Your task to perform on an android device: toggle javascript in the chrome app Image 0: 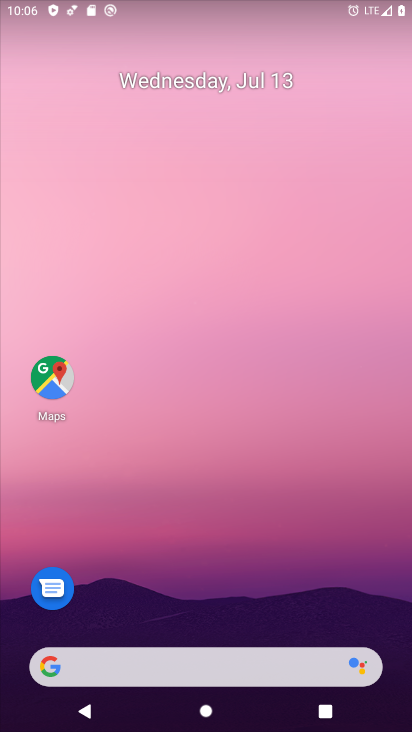
Step 0: drag from (257, 712) to (273, 89)
Your task to perform on an android device: toggle javascript in the chrome app Image 1: 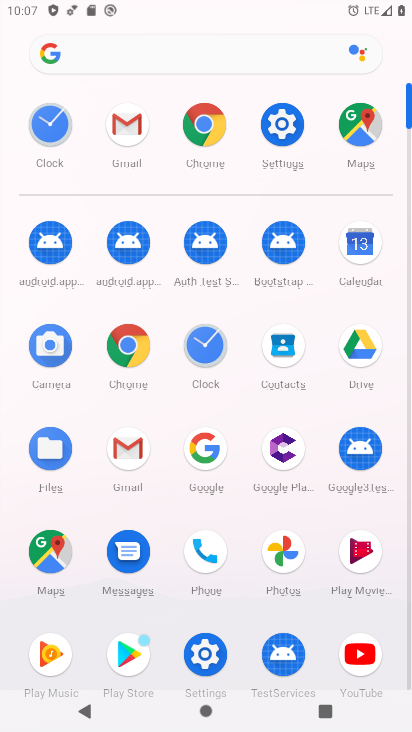
Step 1: click (208, 112)
Your task to perform on an android device: toggle javascript in the chrome app Image 2: 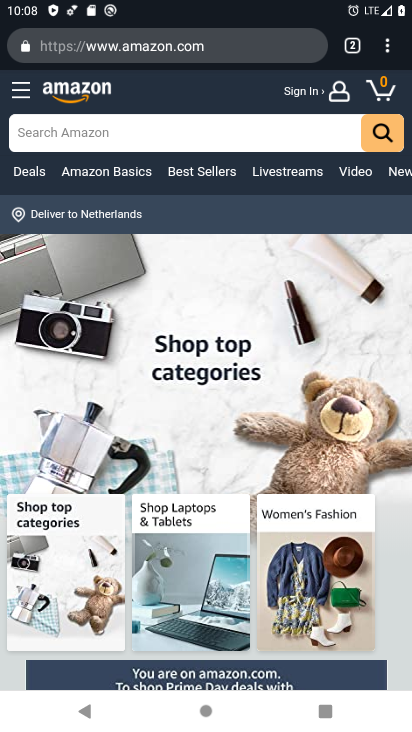
Step 2: click (384, 41)
Your task to perform on an android device: toggle javascript in the chrome app Image 3: 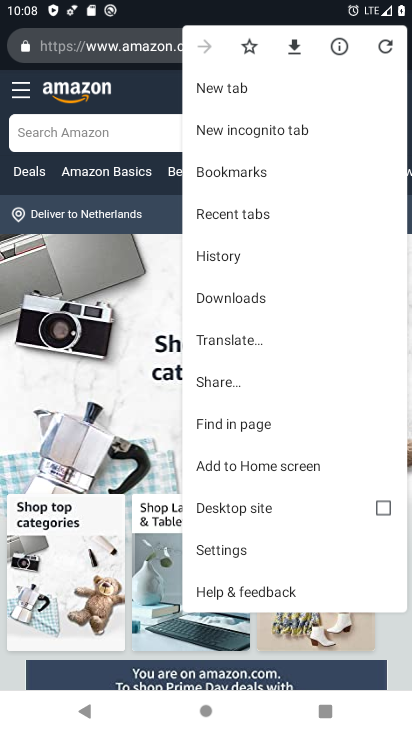
Step 3: click (249, 545)
Your task to perform on an android device: toggle javascript in the chrome app Image 4: 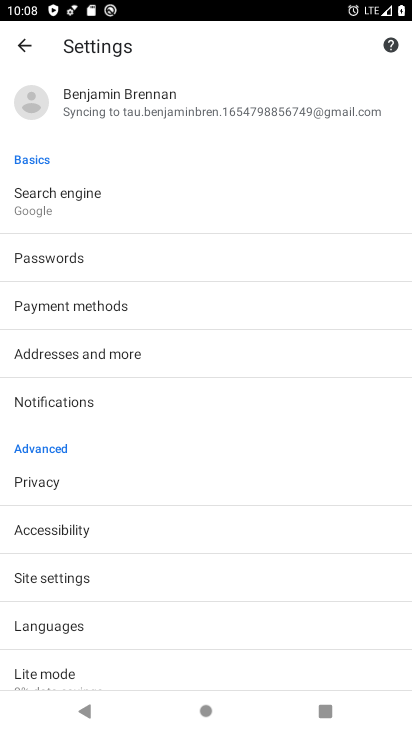
Step 4: click (31, 576)
Your task to perform on an android device: toggle javascript in the chrome app Image 5: 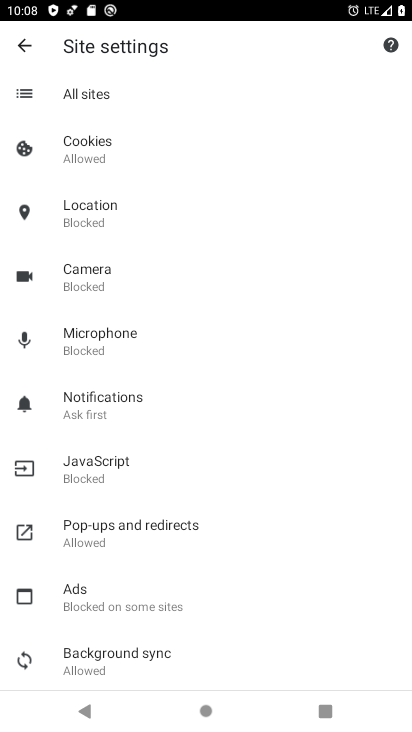
Step 5: click (124, 468)
Your task to perform on an android device: toggle javascript in the chrome app Image 6: 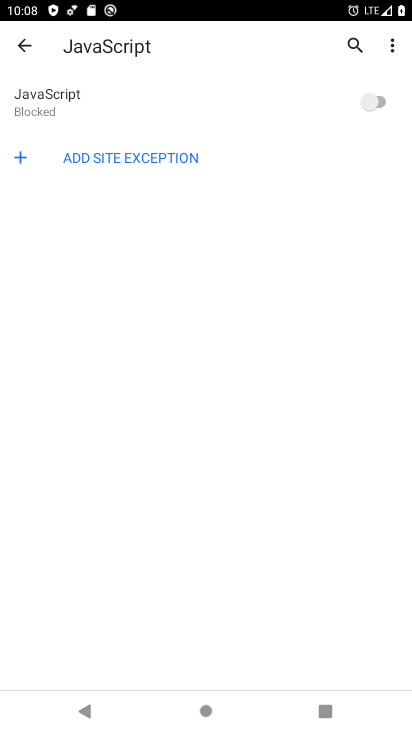
Step 6: click (386, 101)
Your task to perform on an android device: toggle javascript in the chrome app Image 7: 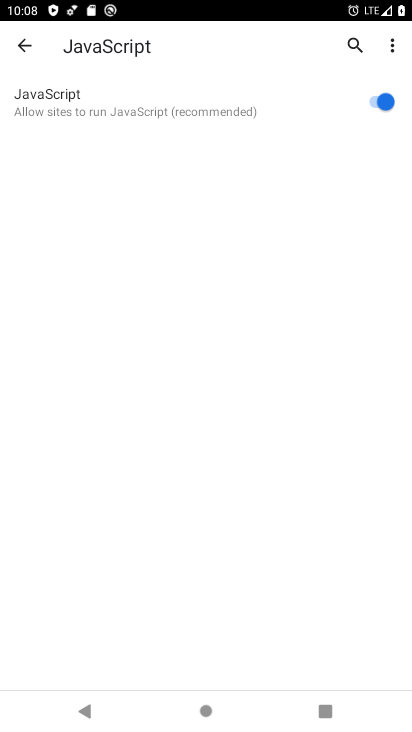
Step 7: task complete